Your task to perform on an android device: turn on bluetooth scan Image 0: 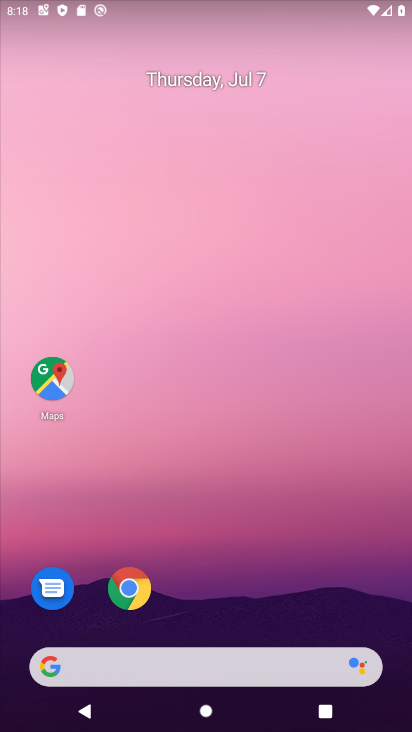
Step 0: drag from (158, 674) to (327, 85)
Your task to perform on an android device: turn on bluetooth scan Image 1: 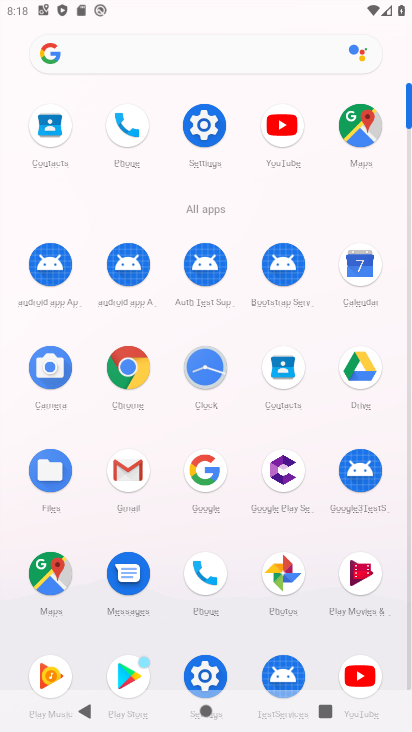
Step 1: click (216, 130)
Your task to perform on an android device: turn on bluetooth scan Image 2: 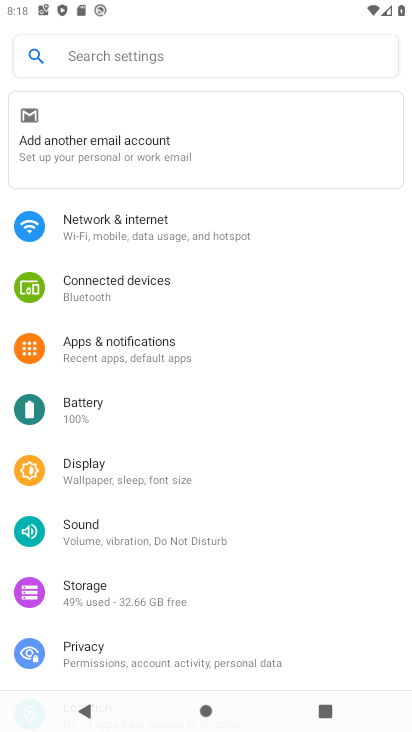
Step 2: drag from (178, 637) to (312, 157)
Your task to perform on an android device: turn on bluetooth scan Image 3: 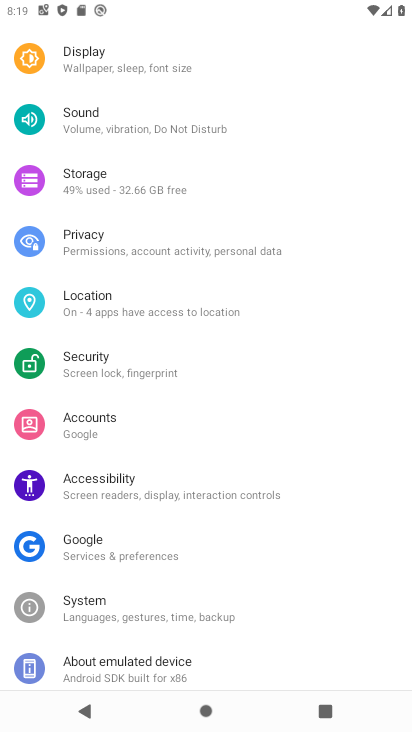
Step 3: click (157, 306)
Your task to perform on an android device: turn on bluetooth scan Image 4: 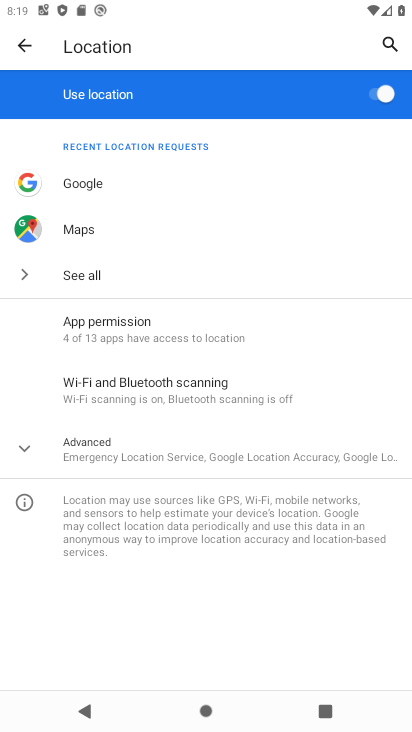
Step 4: click (188, 384)
Your task to perform on an android device: turn on bluetooth scan Image 5: 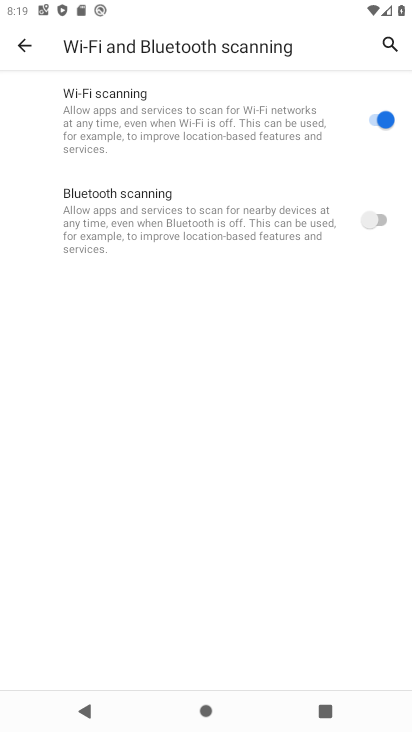
Step 5: click (379, 221)
Your task to perform on an android device: turn on bluetooth scan Image 6: 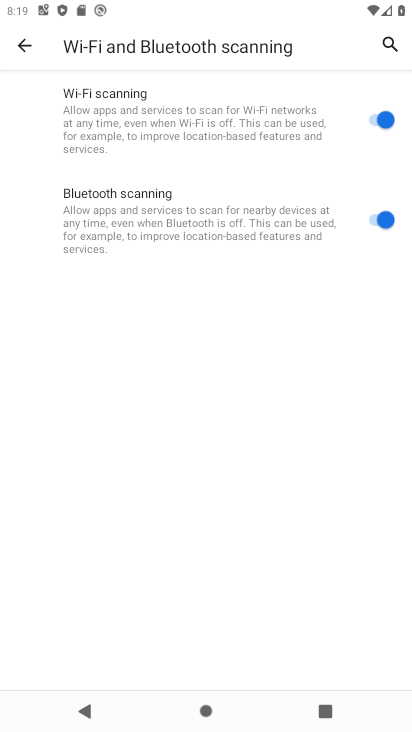
Step 6: task complete